Your task to perform on an android device: toggle show notifications on the lock screen Image 0: 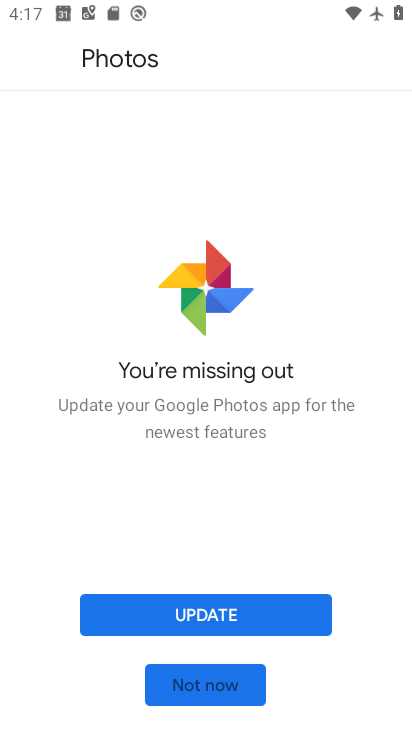
Step 0: press home button
Your task to perform on an android device: toggle show notifications on the lock screen Image 1: 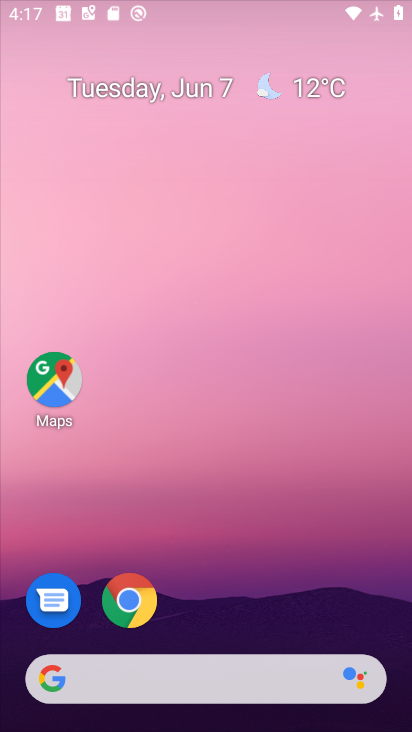
Step 1: drag from (376, 551) to (81, 249)
Your task to perform on an android device: toggle show notifications on the lock screen Image 2: 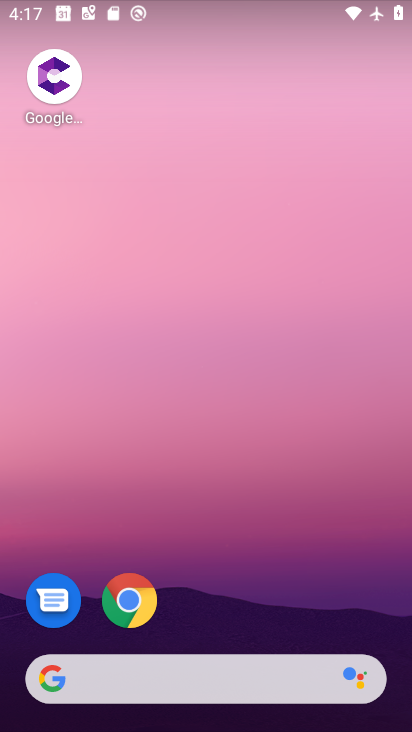
Step 2: drag from (247, 578) to (221, 97)
Your task to perform on an android device: toggle show notifications on the lock screen Image 3: 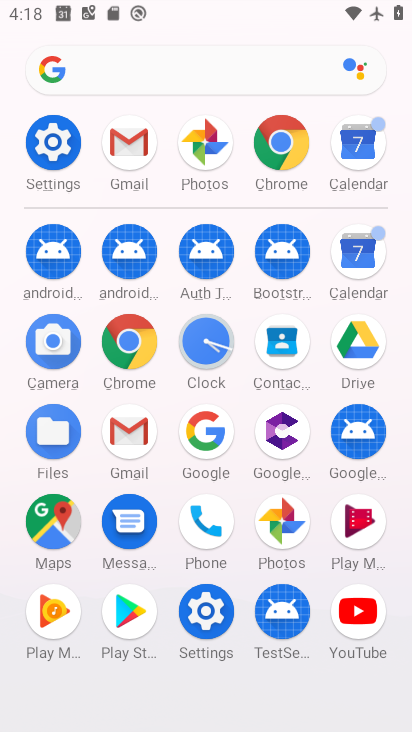
Step 3: click (45, 138)
Your task to perform on an android device: toggle show notifications on the lock screen Image 4: 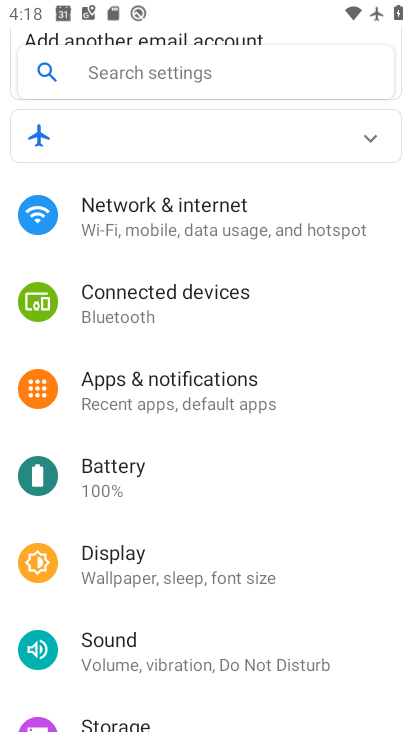
Step 4: click (155, 379)
Your task to perform on an android device: toggle show notifications on the lock screen Image 5: 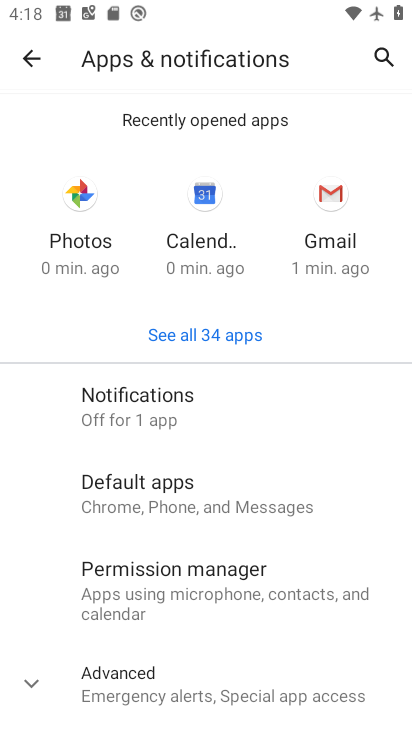
Step 5: click (198, 409)
Your task to perform on an android device: toggle show notifications on the lock screen Image 6: 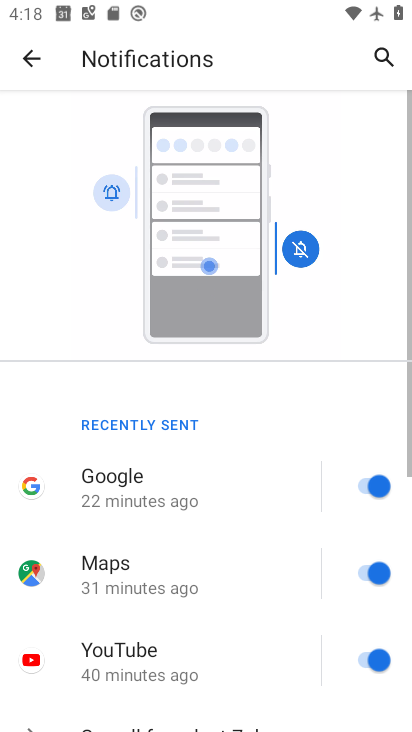
Step 6: drag from (258, 485) to (198, 44)
Your task to perform on an android device: toggle show notifications on the lock screen Image 7: 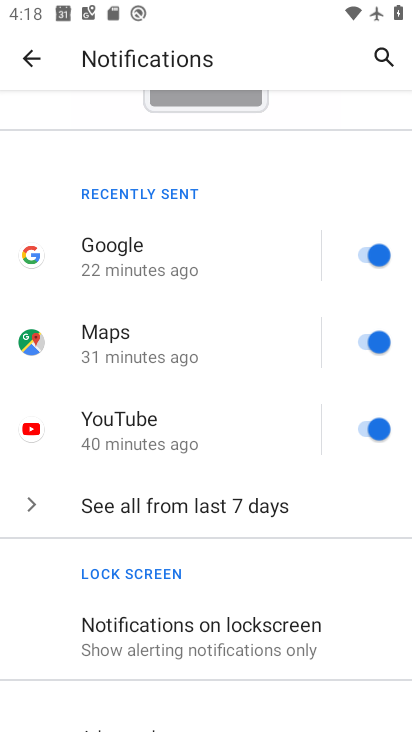
Step 7: click (192, 655)
Your task to perform on an android device: toggle show notifications on the lock screen Image 8: 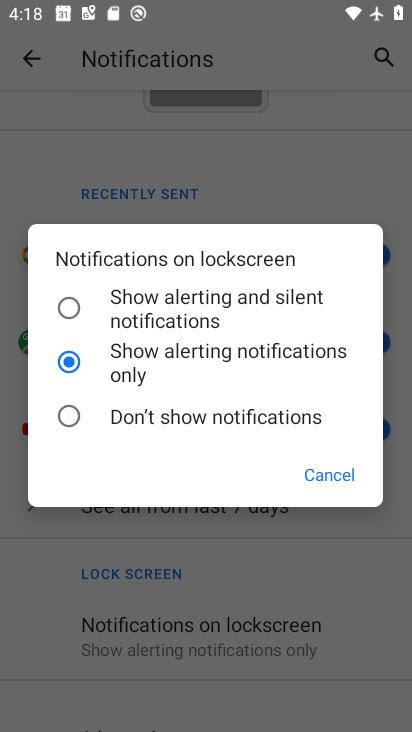
Step 8: task complete